Your task to perform on an android device: toggle show notifications on the lock screen Image 0: 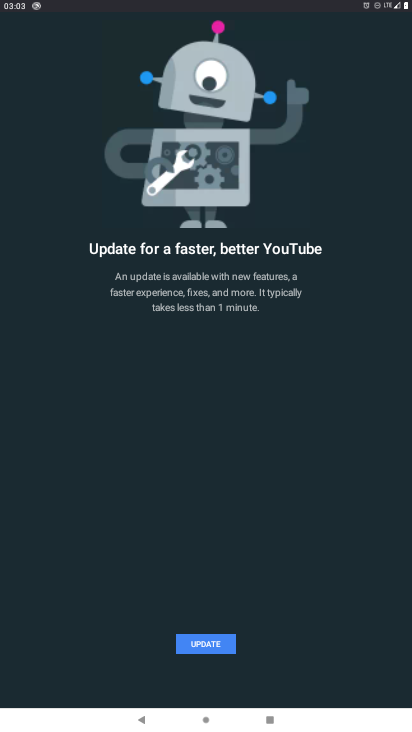
Step 0: press home button
Your task to perform on an android device: toggle show notifications on the lock screen Image 1: 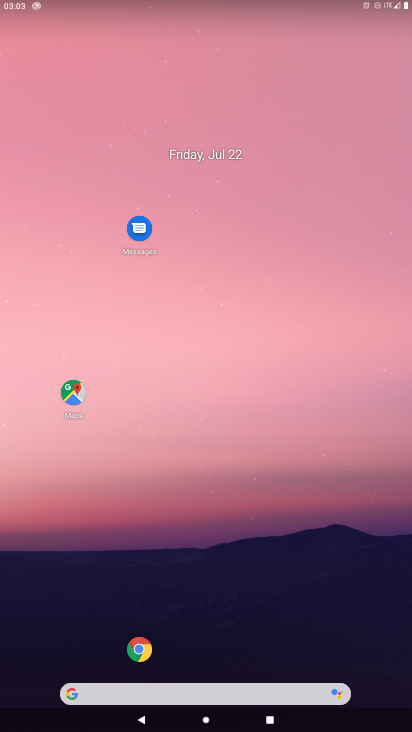
Step 1: click (251, 254)
Your task to perform on an android device: toggle show notifications on the lock screen Image 2: 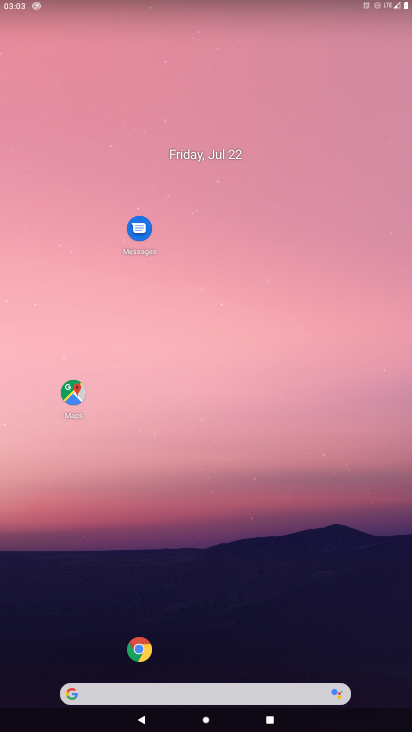
Step 2: click (167, 244)
Your task to perform on an android device: toggle show notifications on the lock screen Image 3: 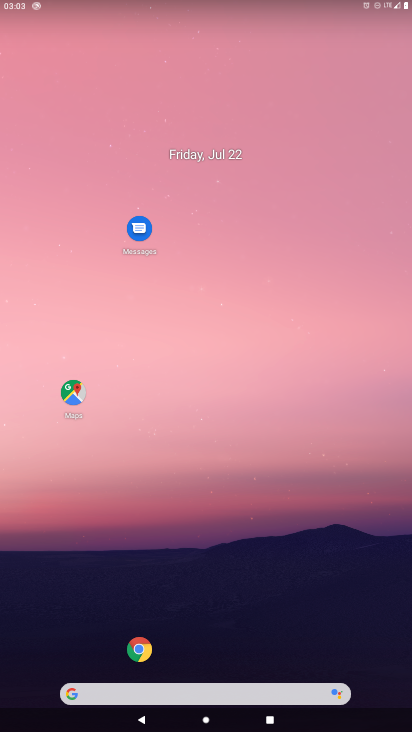
Step 3: drag from (16, 705) to (187, 24)
Your task to perform on an android device: toggle show notifications on the lock screen Image 4: 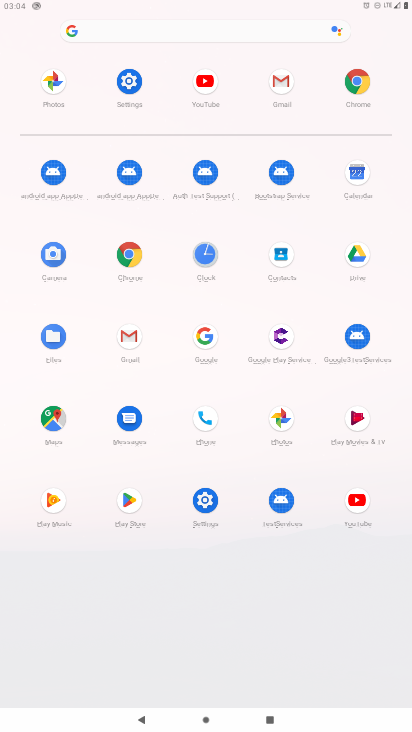
Step 4: click (208, 495)
Your task to perform on an android device: toggle show notifications on the lock screen Image 5: 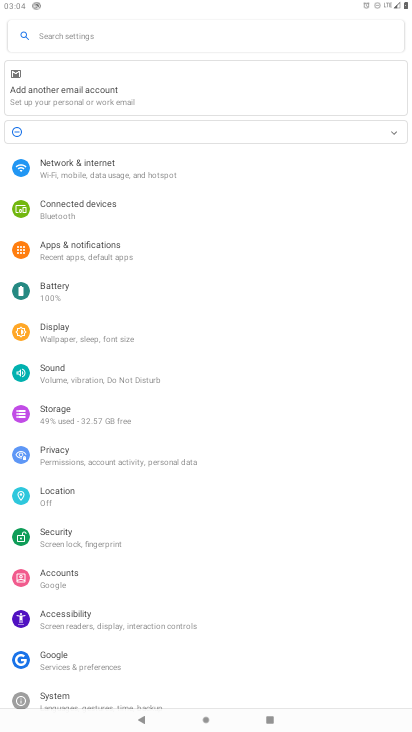
Step 5: click (67, 245)
Your task to perform on an android device: toggle show notifications on the lock screen Image 6: 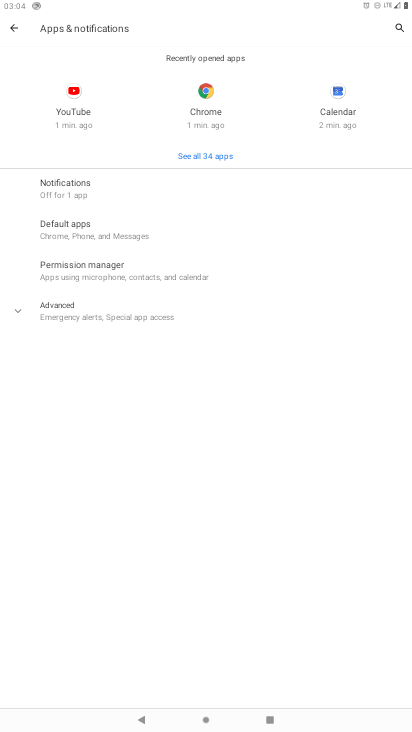
Step 6: click (71, 190)
Your task to perform on an android device: toggle show notifications on the lock screen Image 7: 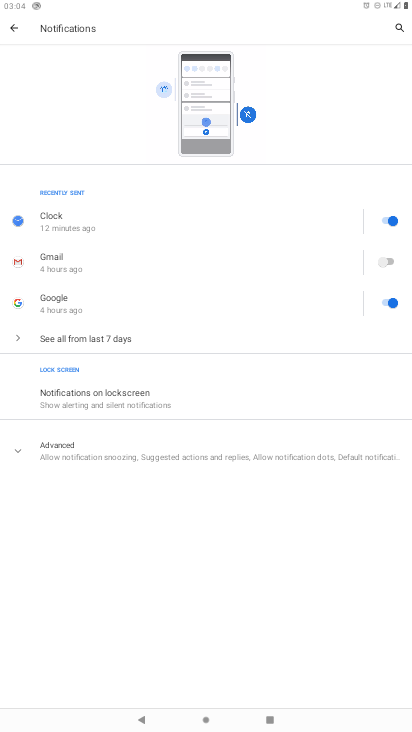
Step 7: click (98, 410)
Your task to perform on an android device: toggle show notifications on the lock screen Image 8: 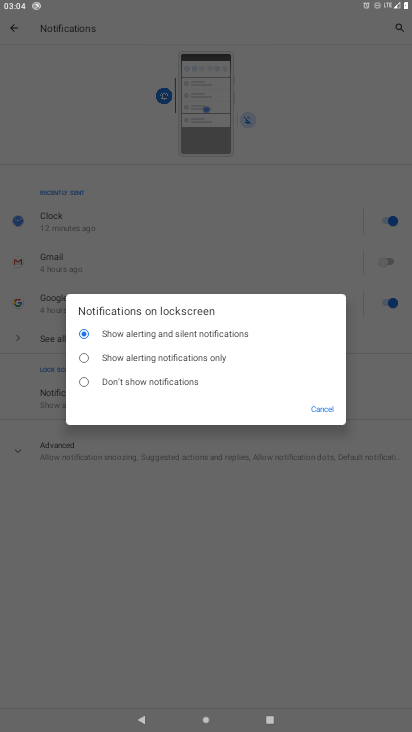
Step 8: task complete